Your task to perform on an android device: What's the news? Image 0: 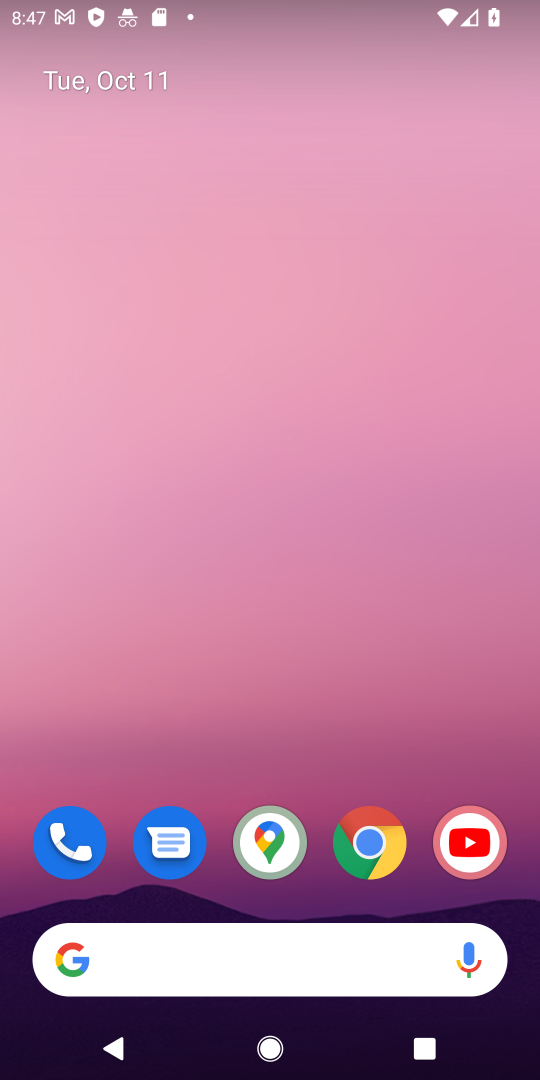
Step 0: click (315, 974)
Your task to perform on an android device: What's the news? Image 1: 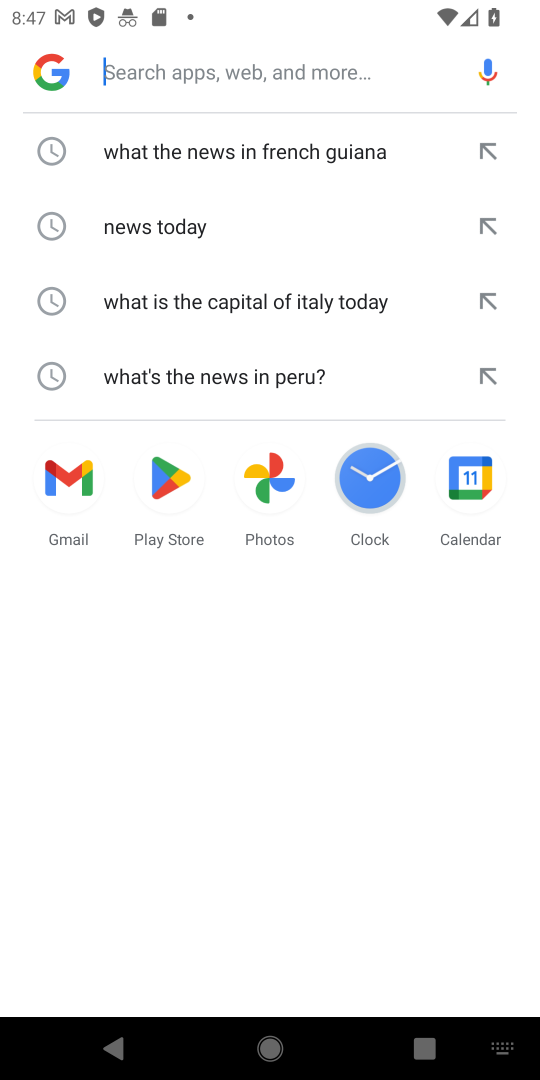
Step 1: type "What's the news?"
Your task to perform on an android device: What's the news? Image 2: 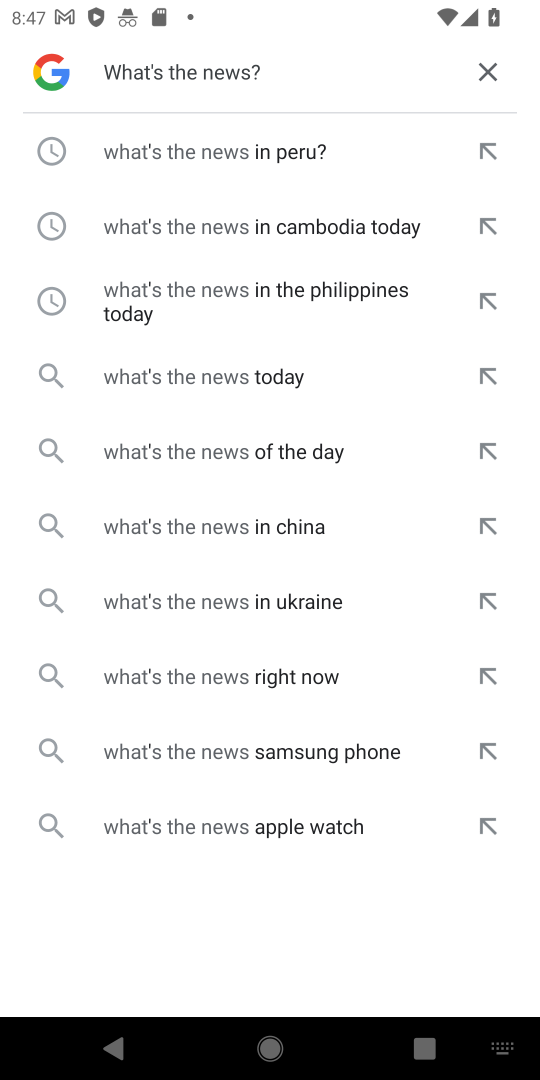
Step 2: click (225, 380)
Your task to perform on an android device: What's the news? Image 3: 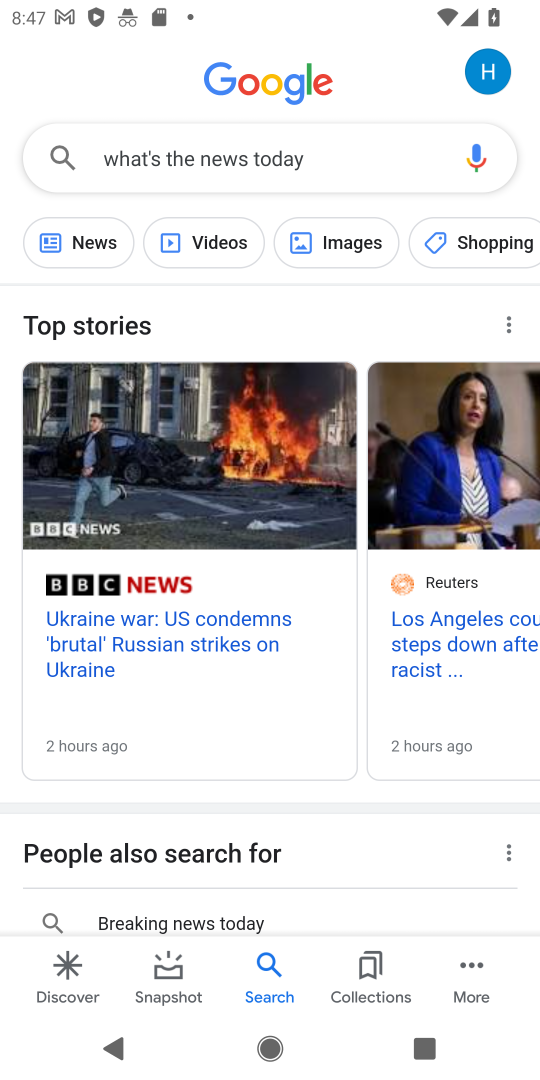
Step 3: click (89, 243)
Your task to perform on an android device: What's the news? Image 4: 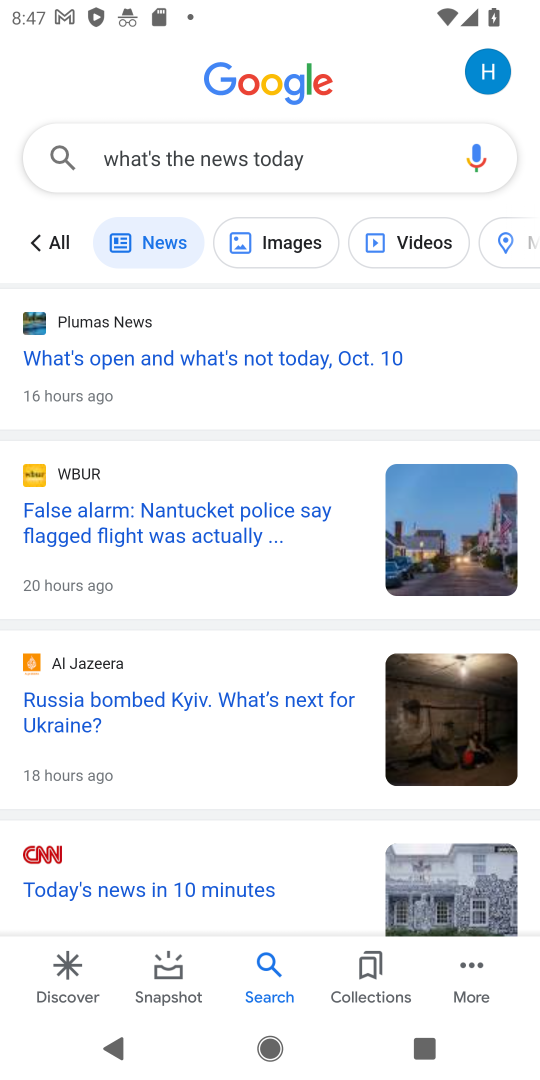
Step 4: task complete